Your task to perform on an android device: move a message to another label in the gmail app Image 0: 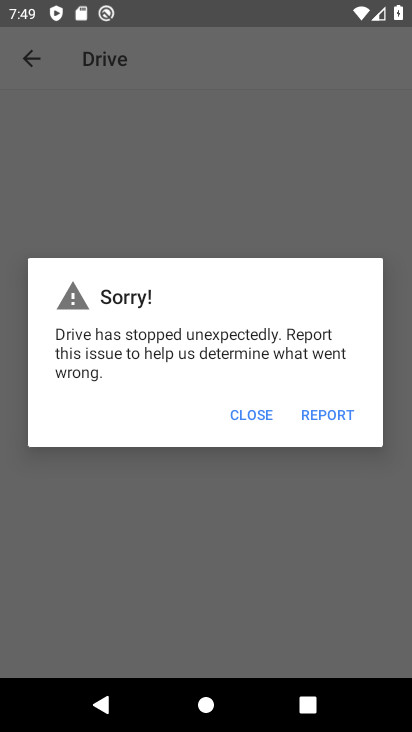
Step 0: press home button
Your task to perform on an android device: move a message to another label in the gmail app Image 1: 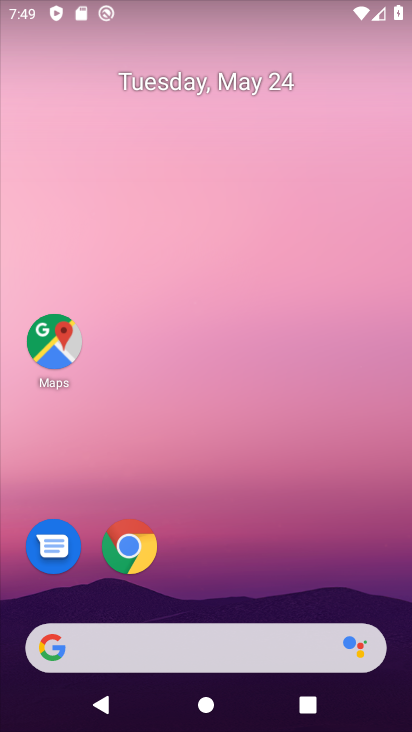
Step 1: drag from (234, 544) to (269, 21)
Your task to perform on an android device: move a message to another label in the gmail app Image 2: 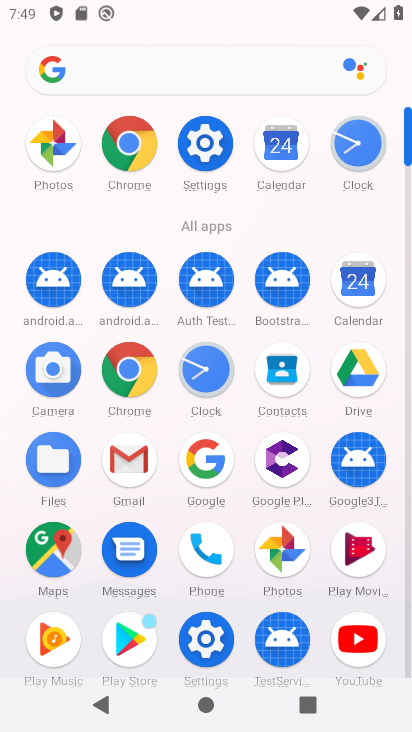
Step 2: click (133, 447)
Your task to perform on an android device: move a message to another label in the gmail app Image 3: 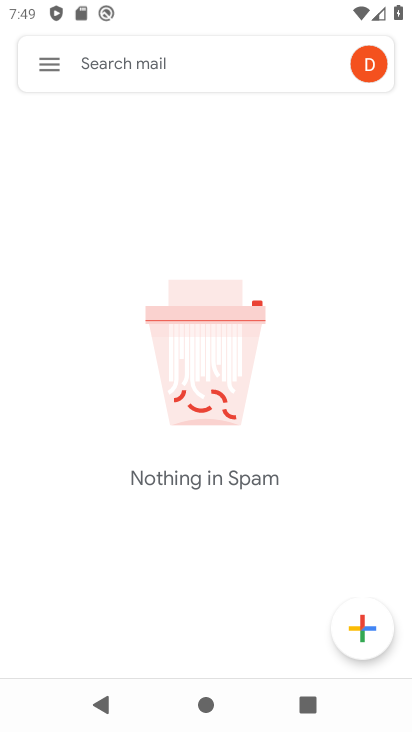
Step 3: click (52, 66)
Your task to perform on an android device: move a message to another label in the gmail app Image 4: 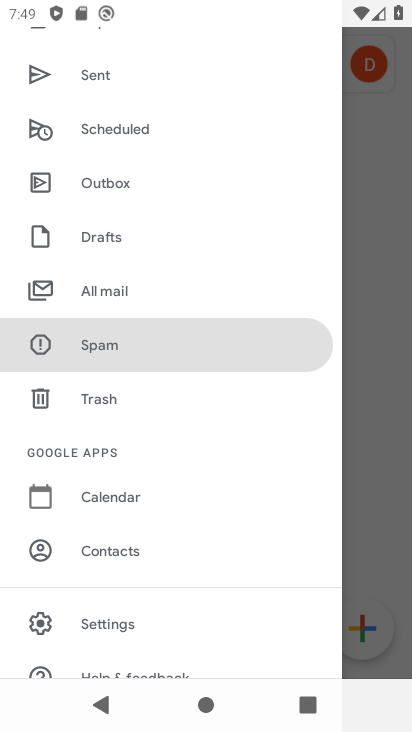
Step 4: click (92, 289)
Your task to perform on an android device: move a message to another label in the gmail app Image 5: 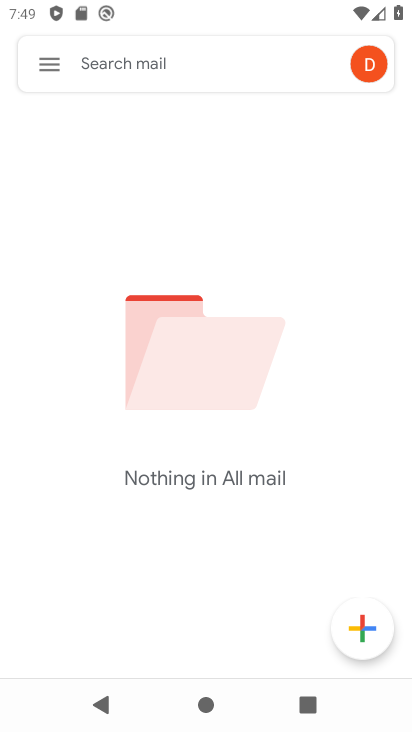
Step 5: task complete